Your task to perform on an android device: install app "Google Maps" Image 0: 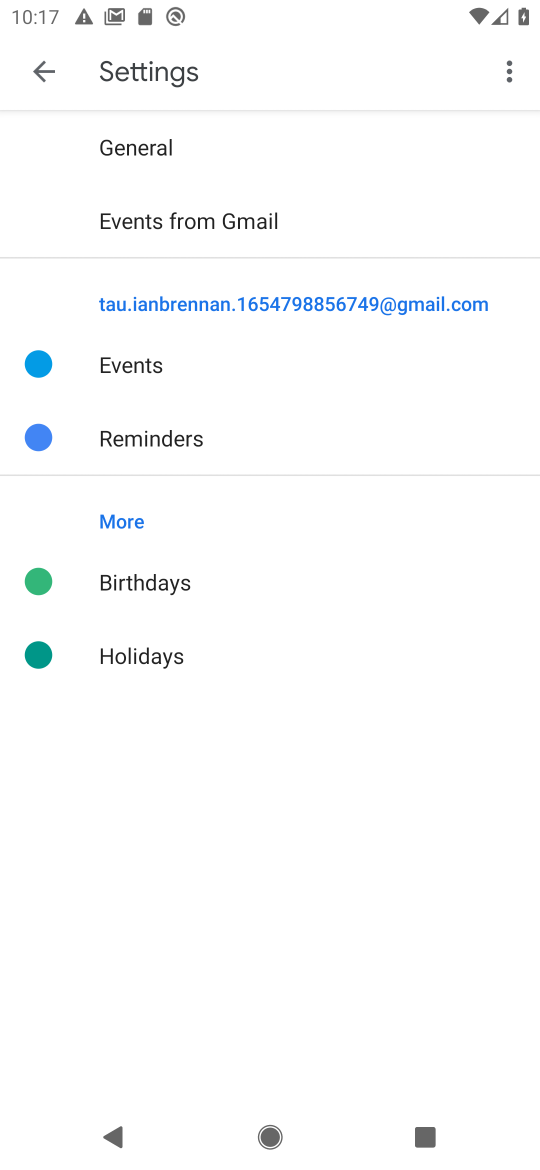
Step 0: press home button
Your task to perform on an android device: install app "Google Maps" Image 1: 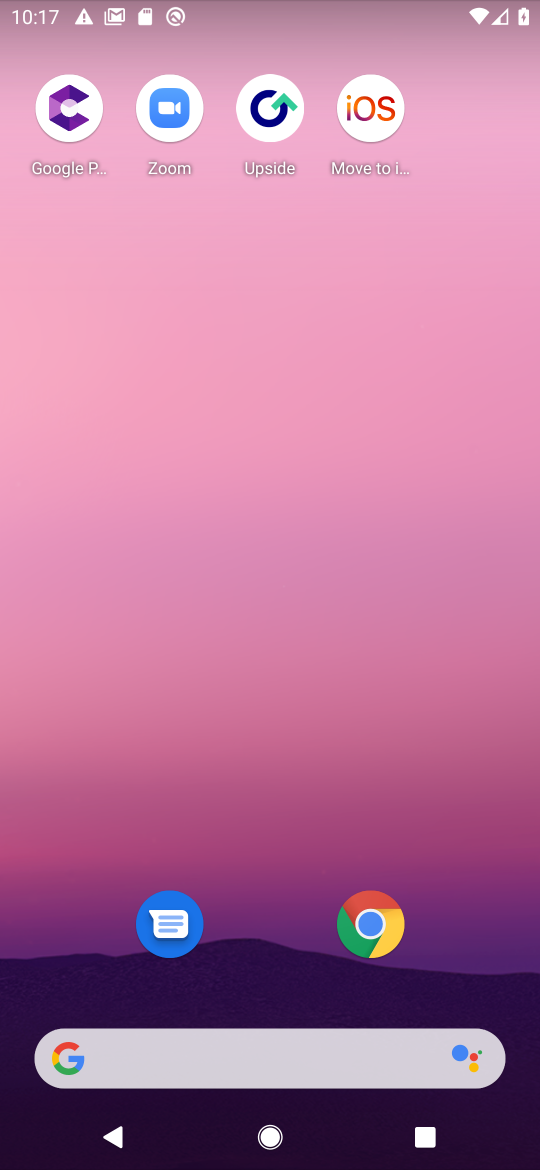
Step 1: drag from (307, 1040) to (123, 2)
Your task to perform on an android device: install app "Google Maps" Image 2: 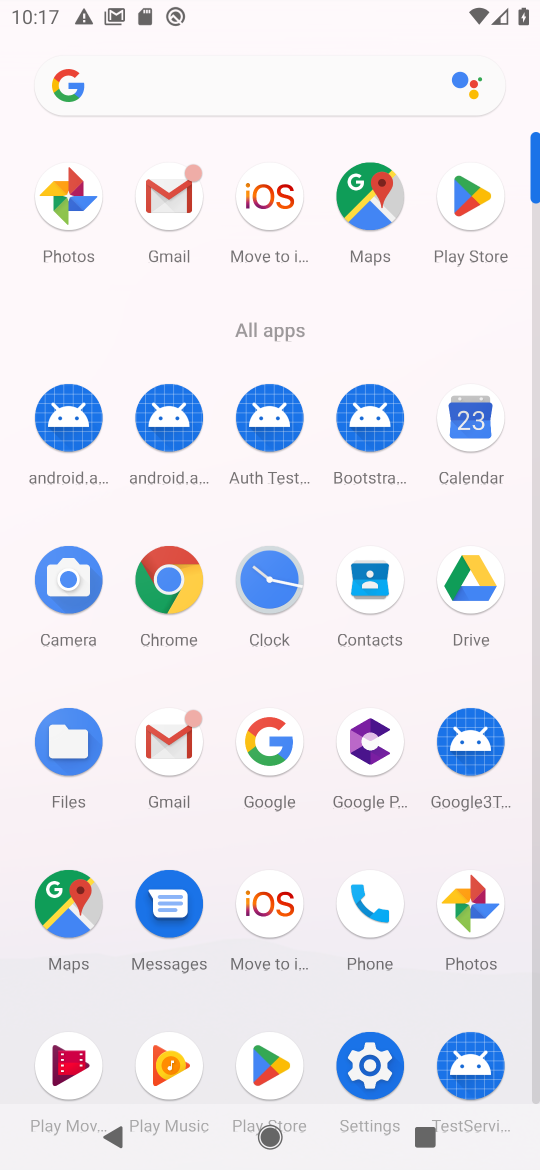
Step 2: click (480, 209)
Your task to perform on an android device: install app "Google Maps" Image 3: 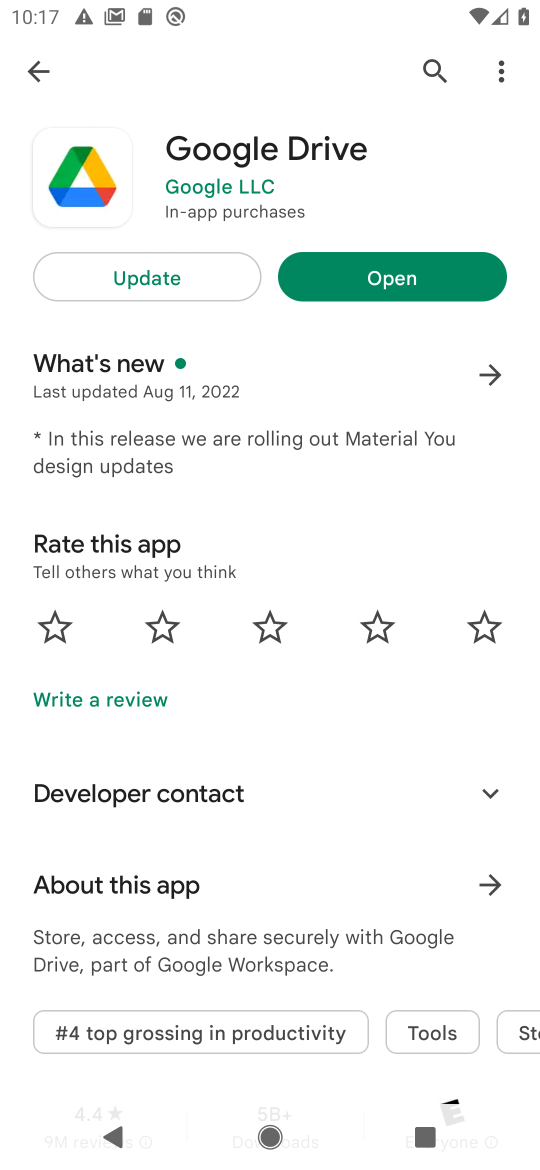
Step 3: click (444, 70)
Your task to perform on an android device: install app "Google Maps" Image 4: 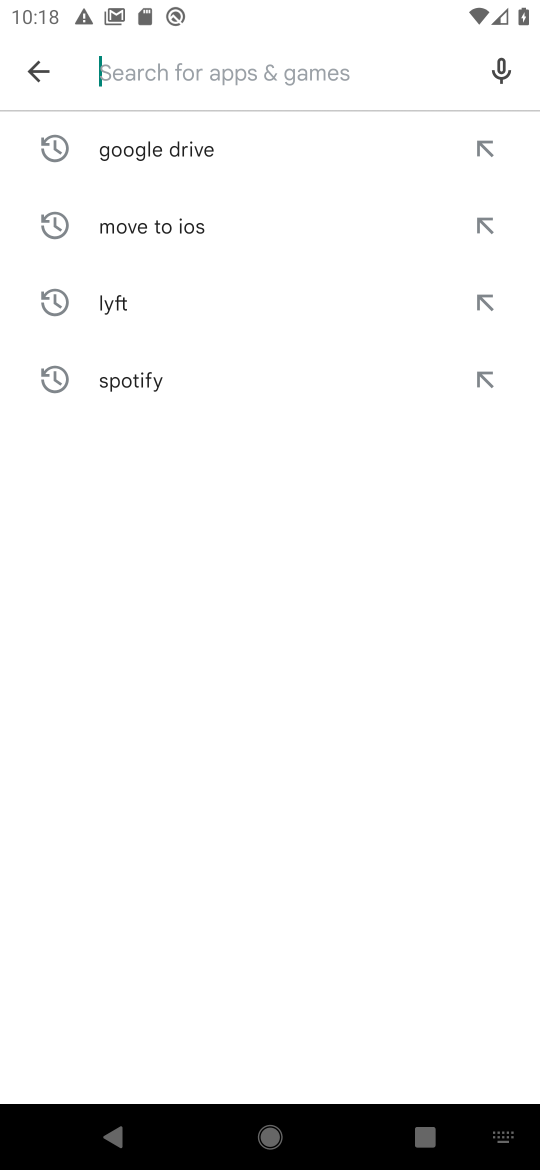
Step 4: type "google maps"
Your task to perform on an android device: install app "Google Maps" Image 5: 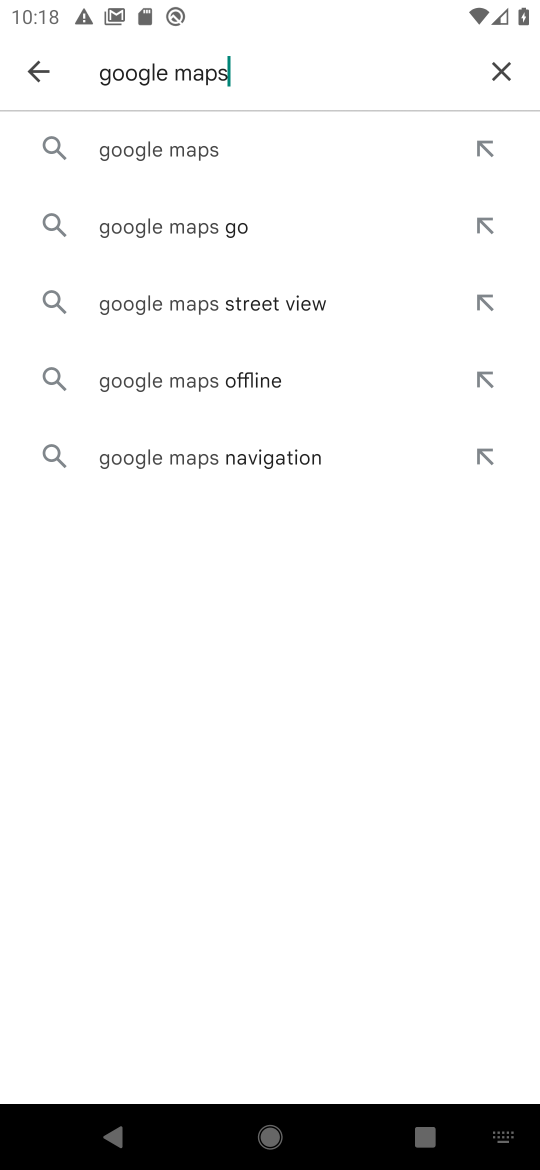
Step 5: click (174, 151)
Your task to perform on an android device: install app "Google Maps" Image 6: 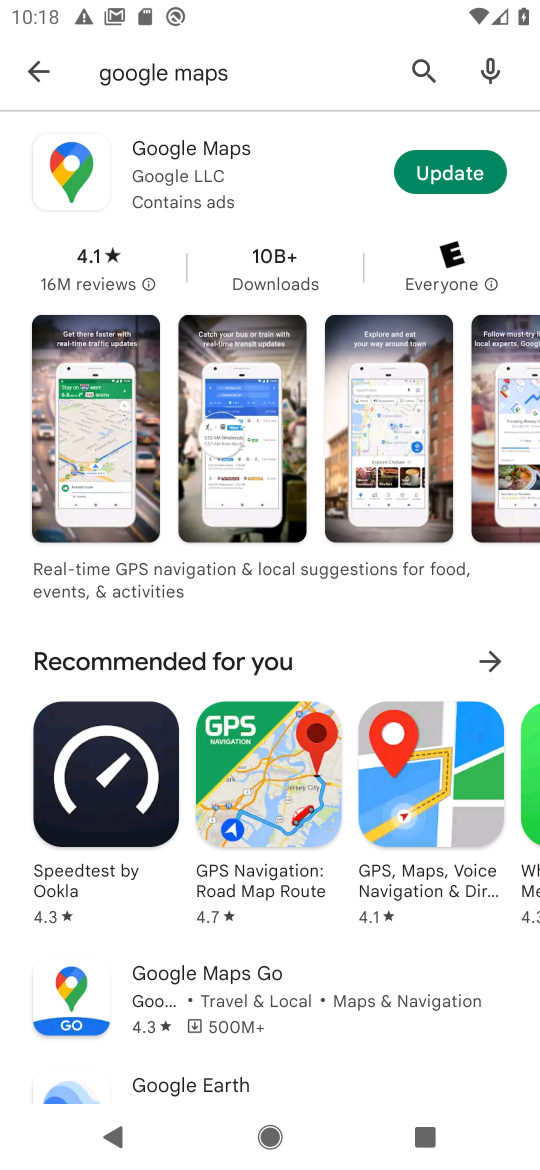
Step 6: click (238, 194)
Your task to perform on an android device: install app "Google Maps" Image 7: 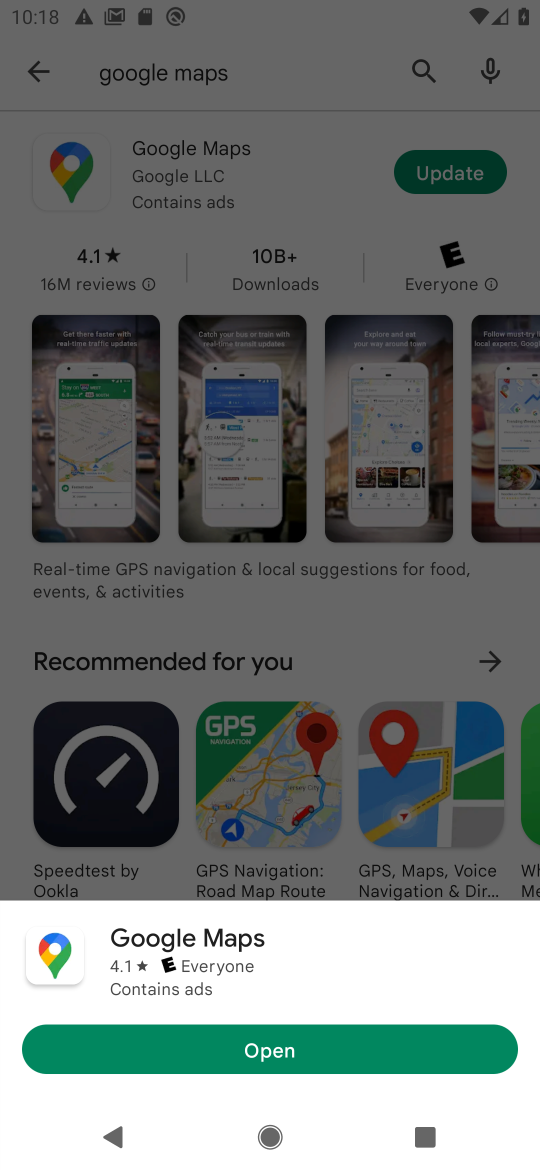
Step 7: task complete